Your task to perform on an android device: Toggle the flashlight Image 0: 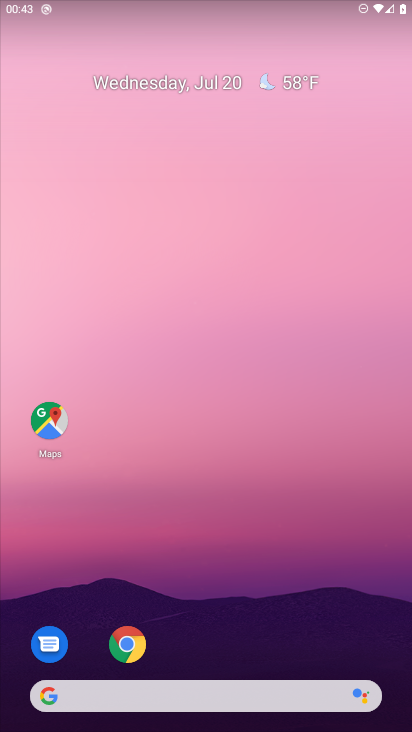
Step 0: drag from (25, 684) to (315, 142)
Your task to perform on an android device: Toggle the flashlight Image 1: 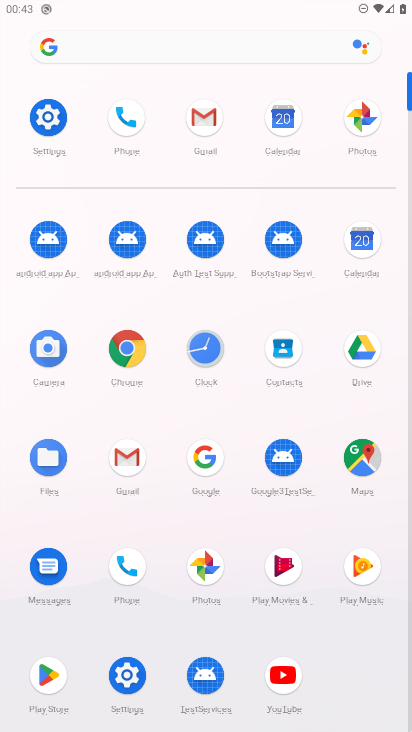
Step 1: task complete